Your task to perform on an android device: Do I have any events tomorrow? Image 0: 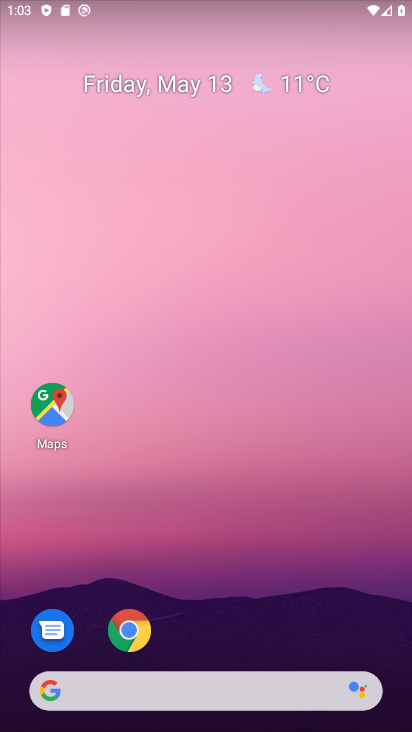
Step 0: drag from (231, 642) to (236, 232)
Your task to perform on an android device: Do I have any events tomorrow? Image 1: 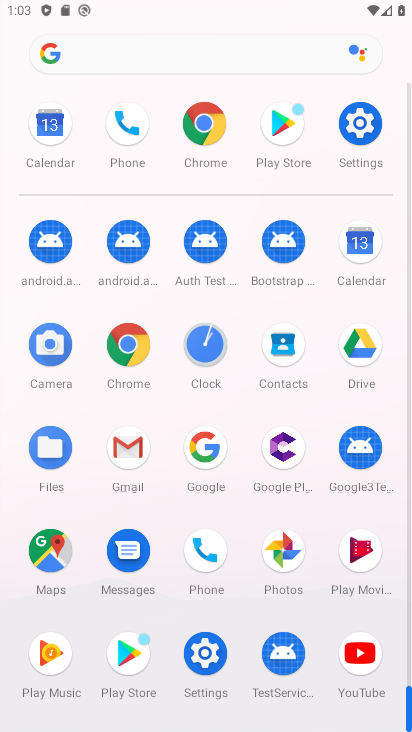
Step 1: click (347, 260)
Your task to perform on an android device: Do I have any events tomorrow? Image 2: 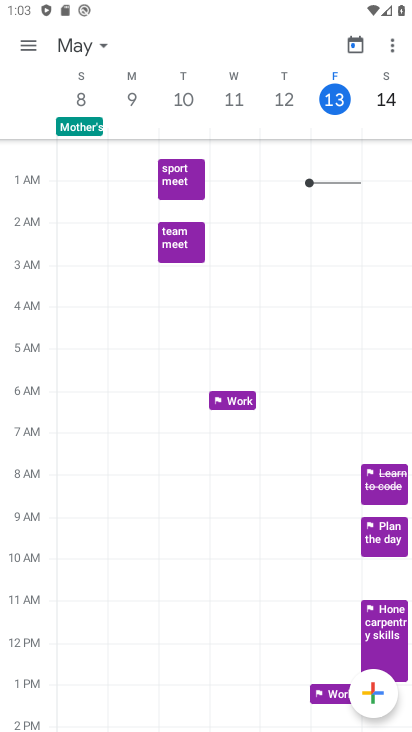
Step 2: click (381, 109)
Your task to perform on an android device: Do I have any events tomorrow? Image 3: 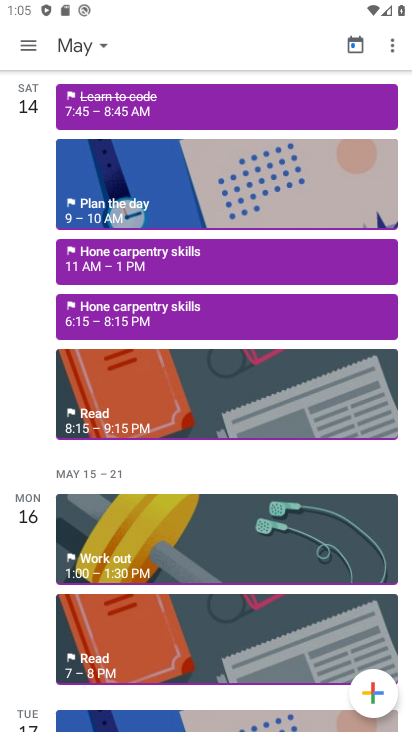
Step 3: task complete